Your task to perform on an android device: Open display settings Image 0: 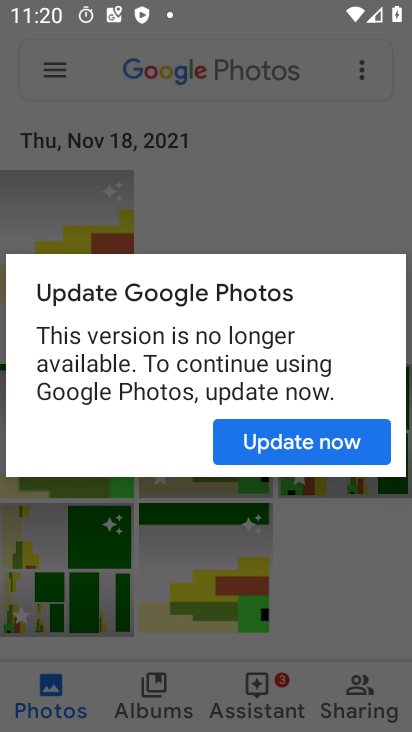
Step 0: press home button
Your task to perform on an android device: Open display settings Image 1: 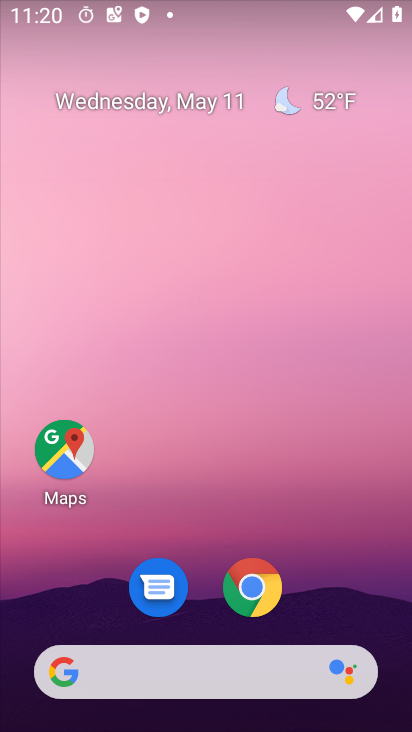
Step 1: drag from (223, 697) to (336, 292)
Your task to perform on an android device: Open display settings Image 2: 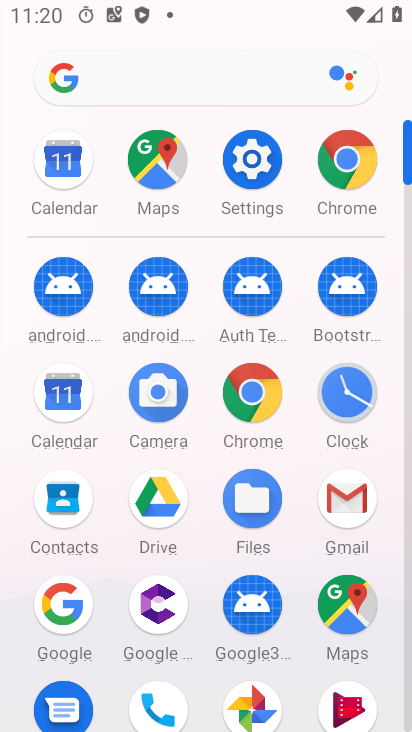
Step 2: click (253, 162)
Your task to perform on an android device: Open display settings Image 3: 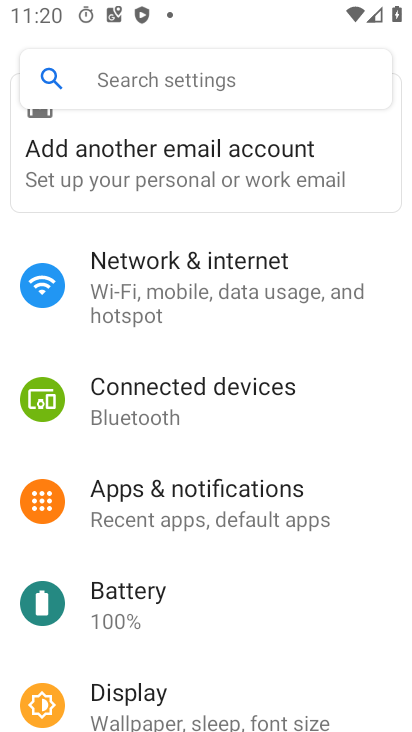
Step 3: click (126, 677)
Your task to perform on an android device: Open display settings Image 4: 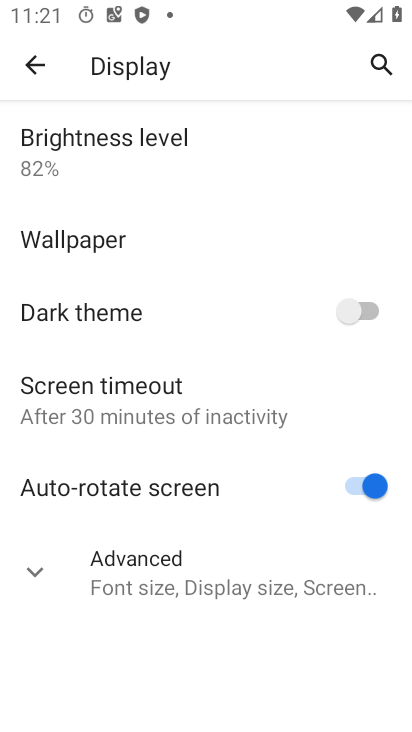
Step 4: task complete